Your task to perform on an android device: Open Chrome and go to the settings page Image 0: 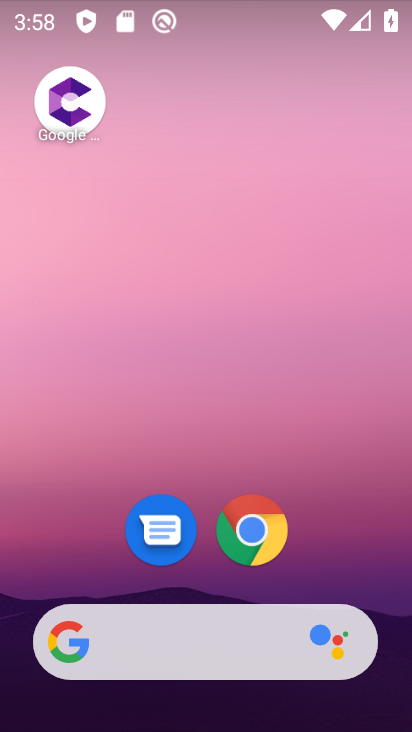
Step 0: drag from (344, 490) to (288, 107)
Your task to perform on an android device: Open Chrome and go to the settings page Image 1: 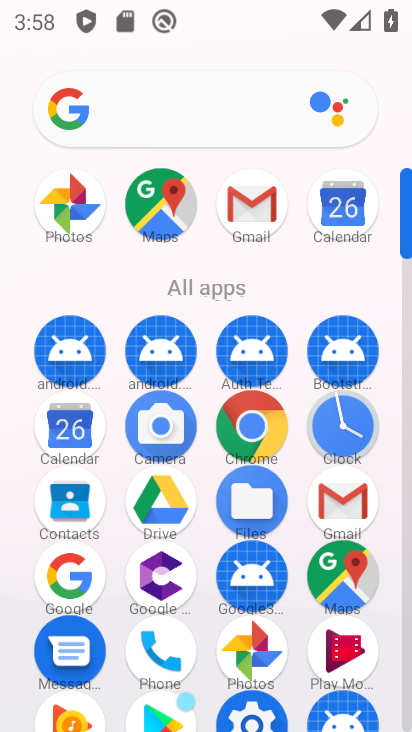
Step 1: click (251, 421)
Your task to perform on an android device: Open Chrome and go to the settings page Image 2: 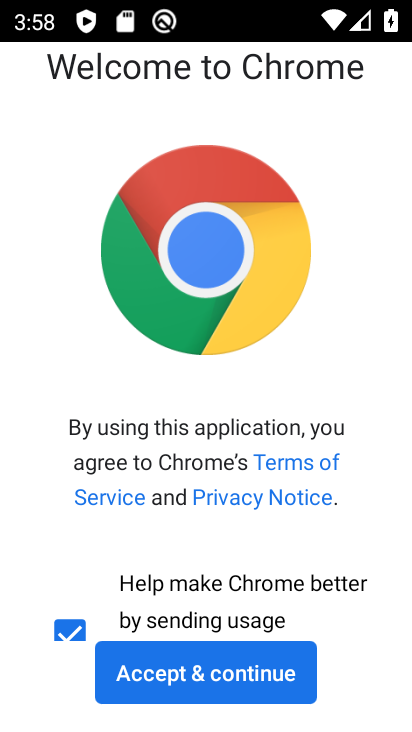
Step 2: click (242, 670)
Your task to perform on an android device: Open Chrome and go to the settings page Image 3: 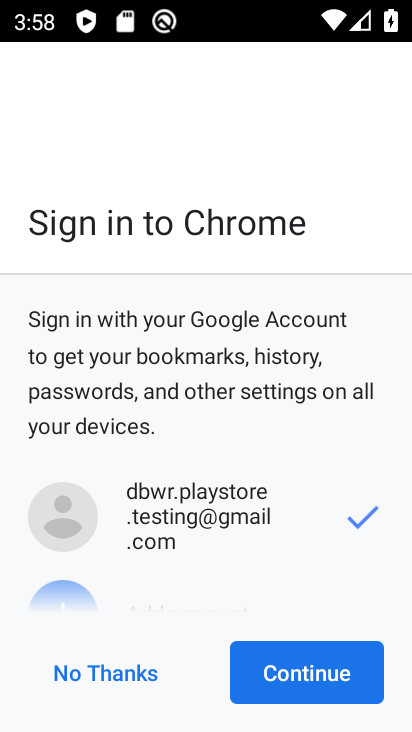
Step 3: click (269, 670)
Your task to perform on an android device: Open Chrome and go to the settings page Image 4: 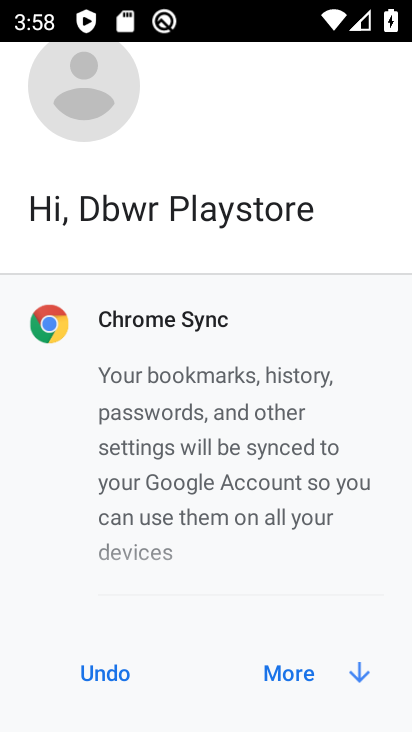
Step 4: click (281, 669)
Your task to perform on an android device: Open Chrome and go to the settings page Image 5: 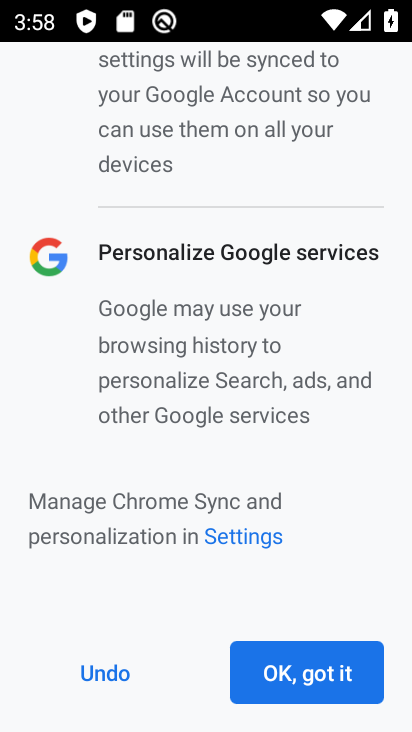
Step 5: click (281, 669)
Your task to perform on an android device: Open Chrome and go to the settings page Image 6: 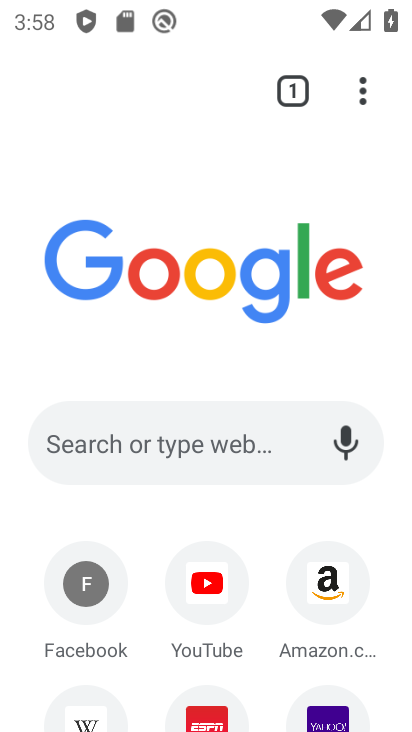
Step 6: task complete